Your task to perform on an android device: turn on sleep mode Image 0: 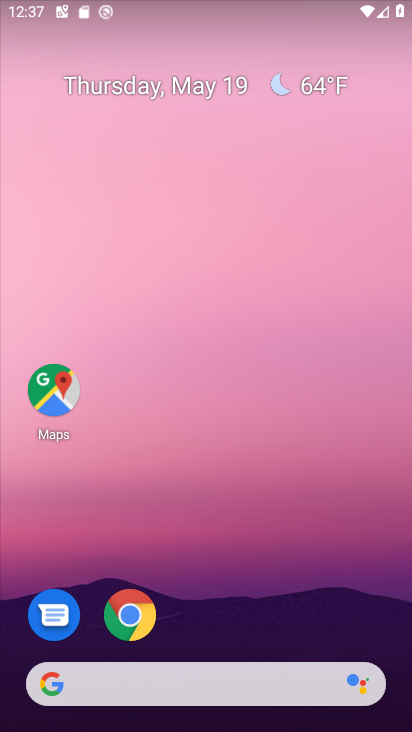
Step 0: drag from (228, 718) to (240, 222)
Your task to perform on an android device: turn on sleep mode Image 1: 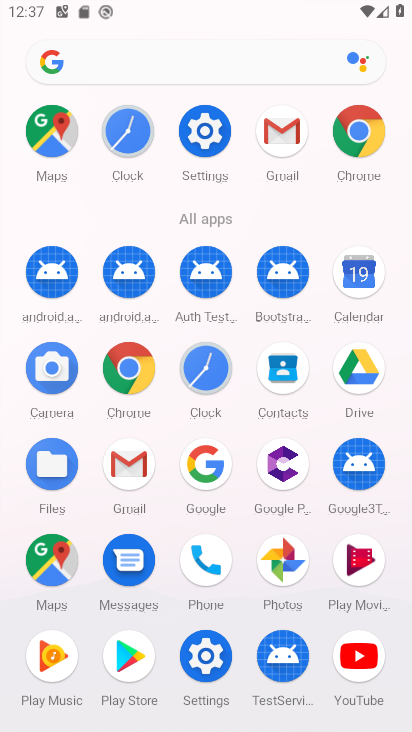
Step 1: click (202, 137)
Your task to perform on an android device: turn on sleep mode Image 2: 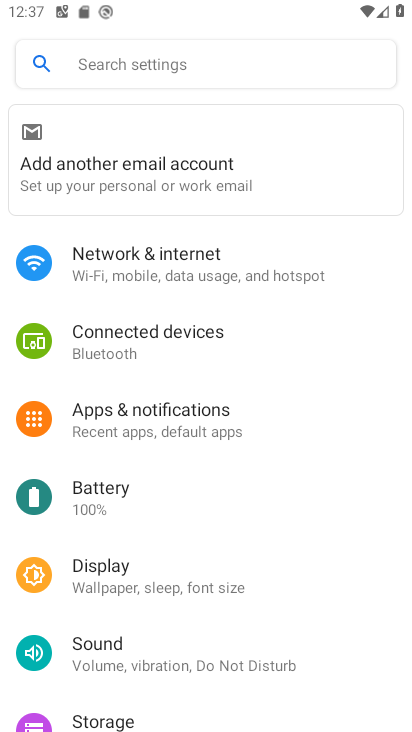
Step 2: click (172, 71)
Your task to perform on an android device: turn on sleep mode Image 3: 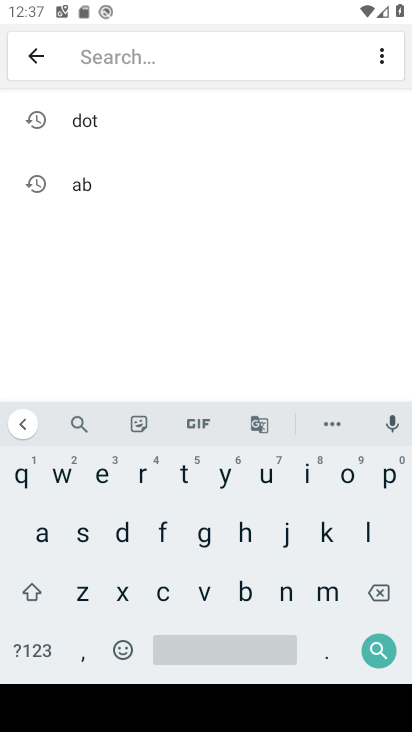
Step 3: click (84, 535)
Your task to perform on an android device: turn on sleep mode Image 4: 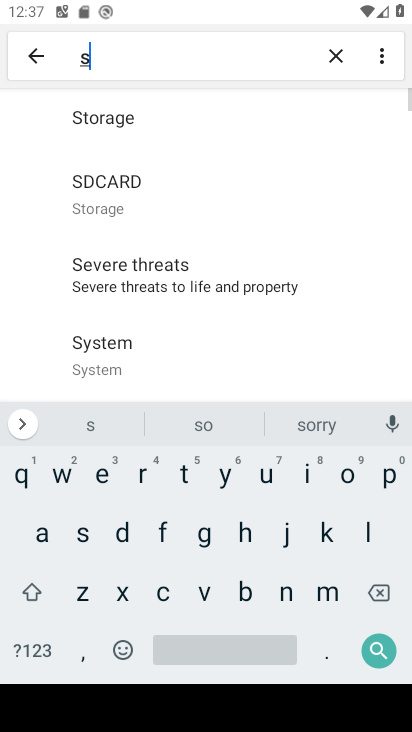
Step 4: click (369, 534)
Your task to perform on an android device: turn on sleep mode Image 5: 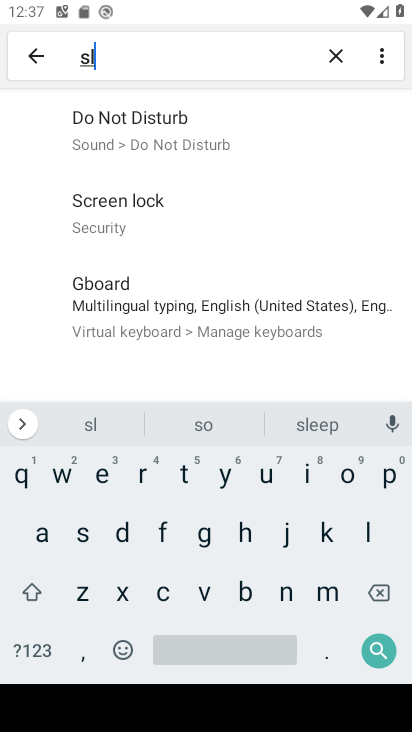
Step 5: click (176, 113)
Your task to perform on an android device: turn on sleep mode Image 6: 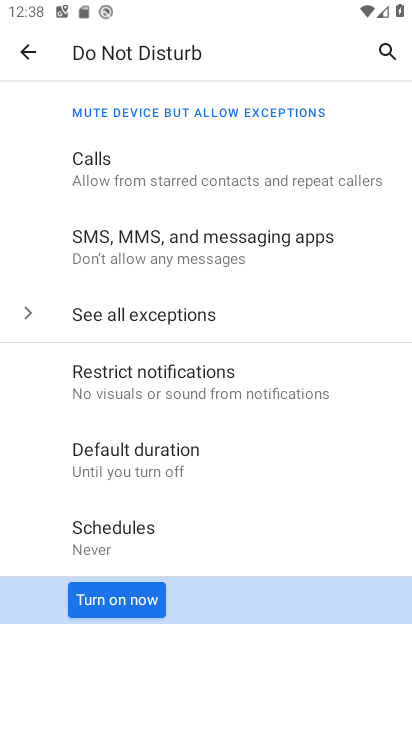
Step 6: click (122, 600)
Your task to perform on an android device: turn on sleep mode Image 7: 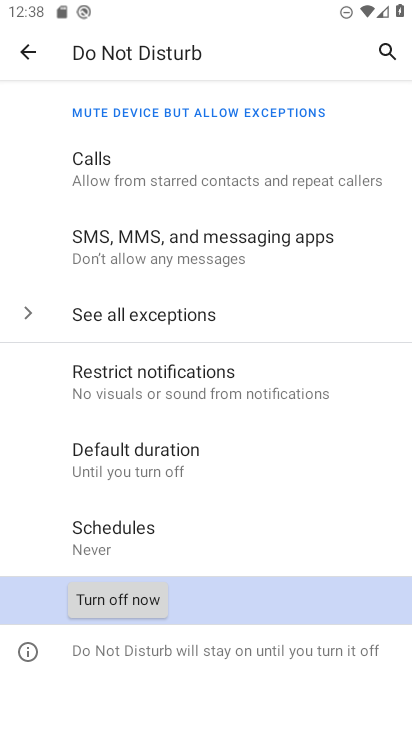
Step 7: task complete